Your task to perform on an android device: turn off javascript in the chrome app Image 0: 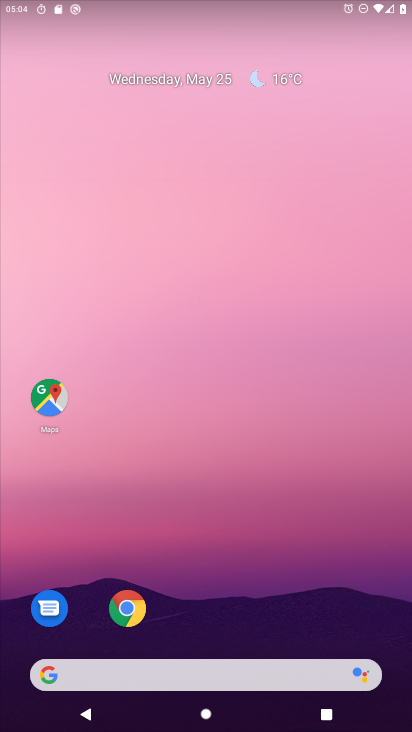
Step 0: click (133, 606)
Your task to perform on an android device: turn off javascript in the chrome app Image 1: 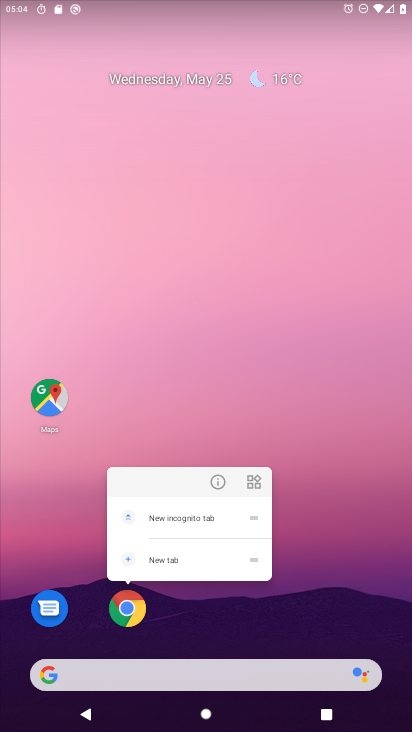
Step 1: click (125, 603)
Your task to perform on an android device: turn off javascript in the chrome app Image 2: 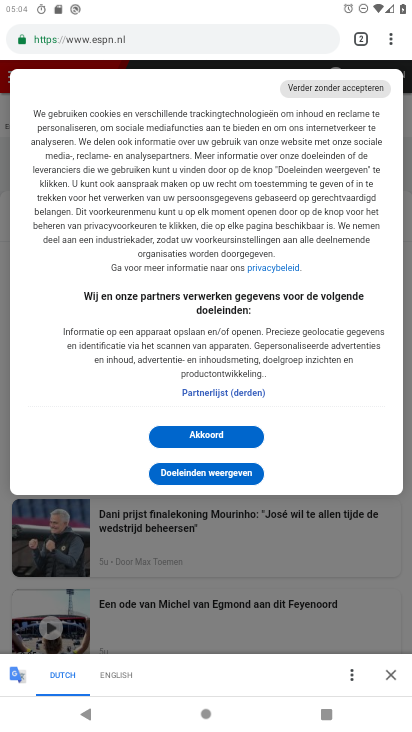
Step 2: click (385, 36)
Your task to perform on an android device: turn off javascript in the chrome app Image 3: 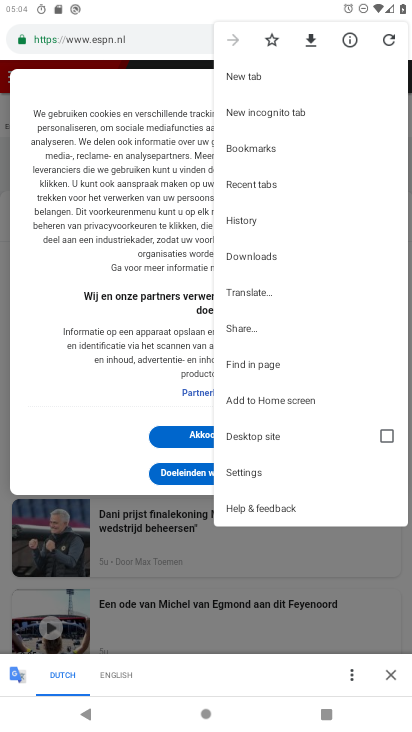
Step 3: click (247, 478)
Your task to perform on an android device: turn off javascript in the chrome app Image 4: 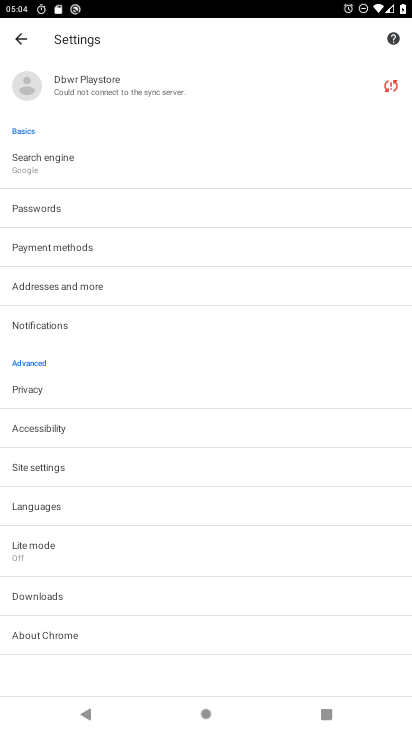
Step 4: click (74, 468)
Your task to perform on an android device: turn off javascript in the chrome app Image 5: 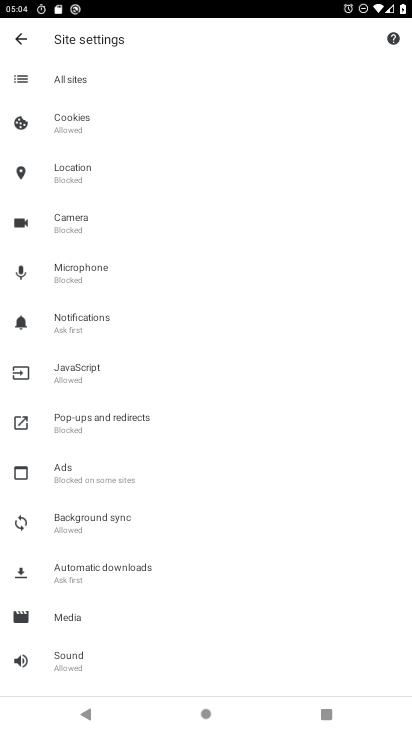
Step 5: click (79, 370)
Your task to perform on an android device: turn off javascript in the chrome app Image 6: 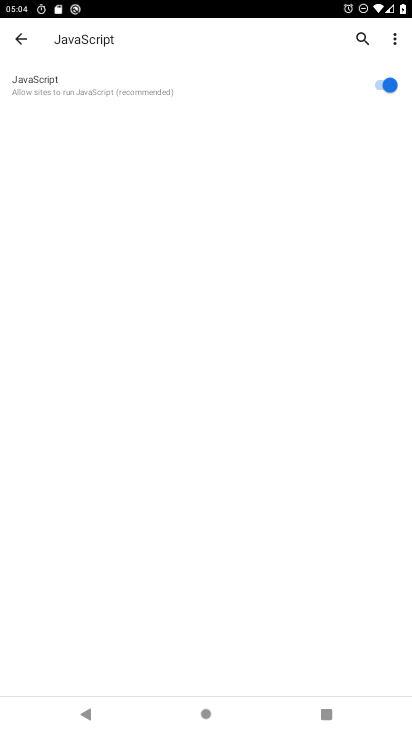
Step 6: click (374, 76)
Your task to perform on an android device: turn off javascript in the chrome app Image 7: 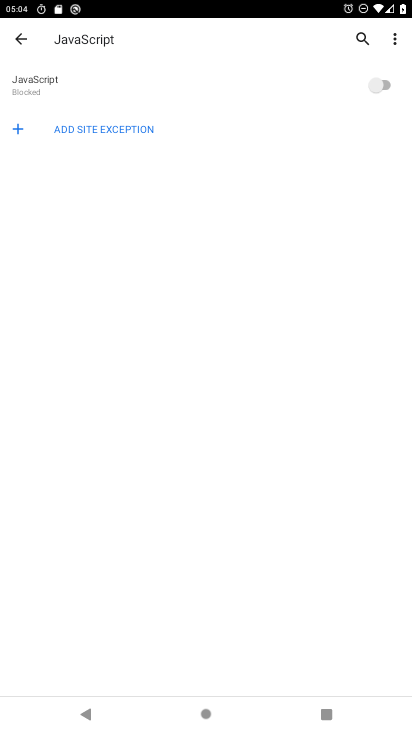
Step 7: task complete